Your task to perform on an android device: visit the assistant section in the google photos Image 0: 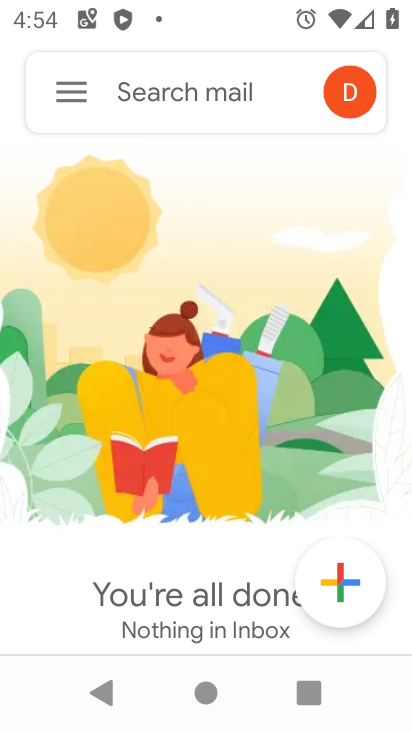
Step 0: task impossible